Your task to perform on an android device: Find coffee shops on Maps Image 0: 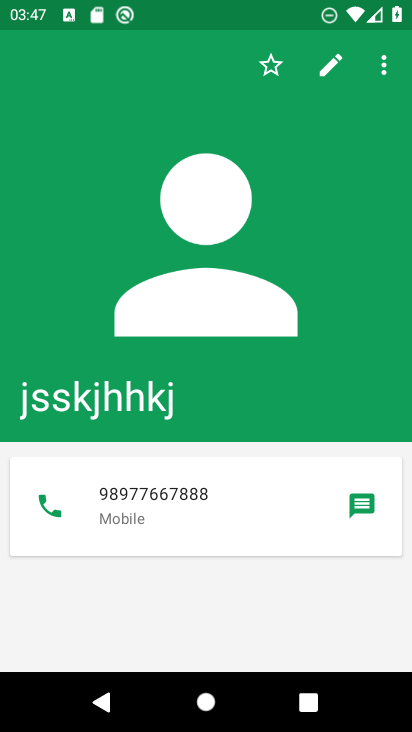
Step 0: press home button
Your task to perform on an android device: Find coffee shops on Maps Image 1: 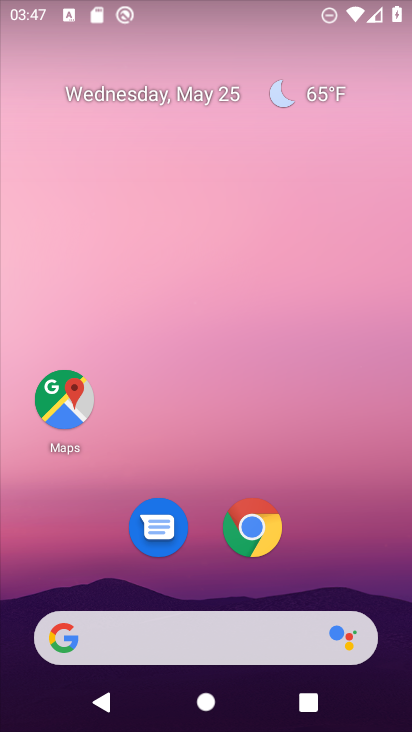
Step 1: drag from (329, 624) to (287, 5)
Your task to perform on an android device: Find coffee shops on Maps Image 2: 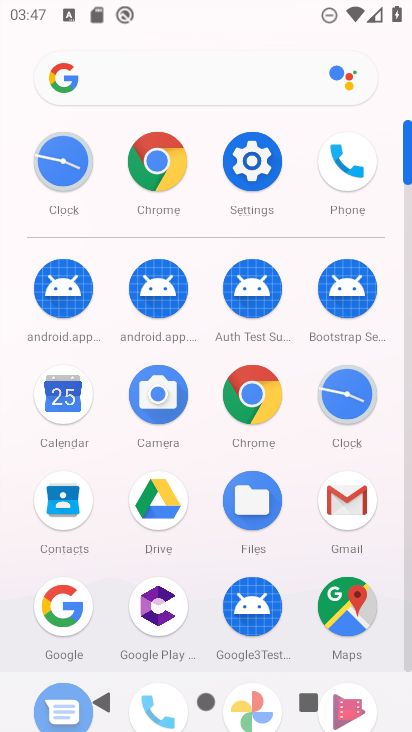
Step 2: click (341, 613)
Your task to perform on an android device: Find coffee shops on Maps Image 3: 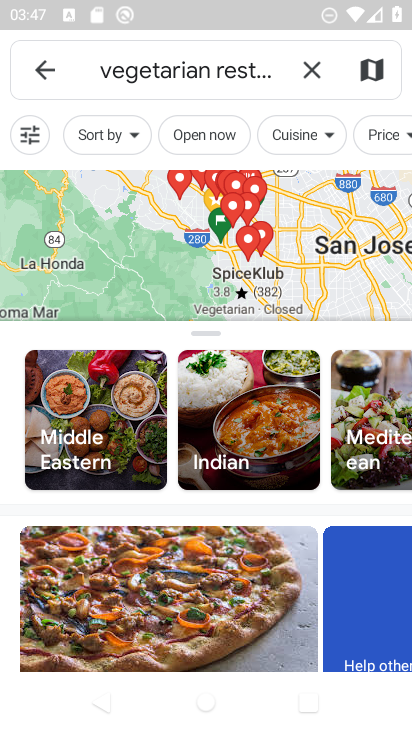
Step 3: press back button
Your task to perform on an android device: Find coffee shops on Maps Image 4: 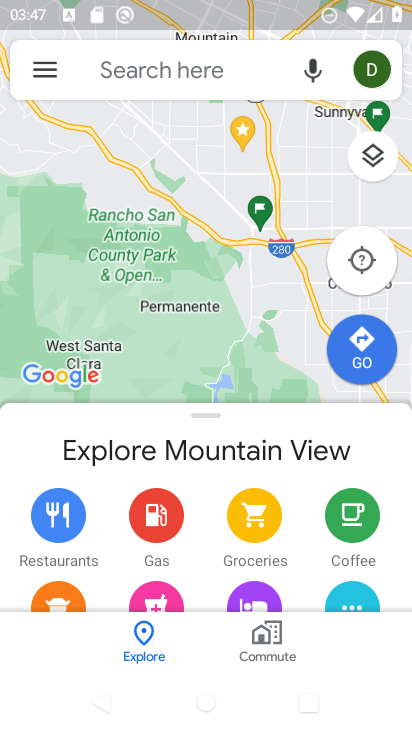
Step 4: click (190, 81)
Your task to perform on an android device: Find coffee shops on Maps Image 5: 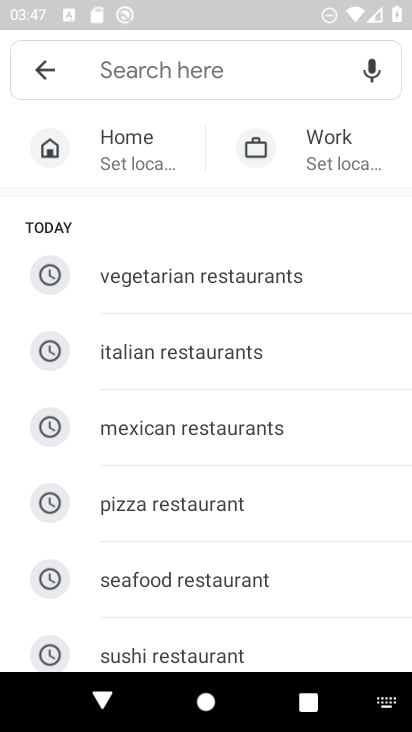
Step 5: type "coffee shops"
Your task to perform on an android device: Find coffee shops on Maps Image 6: 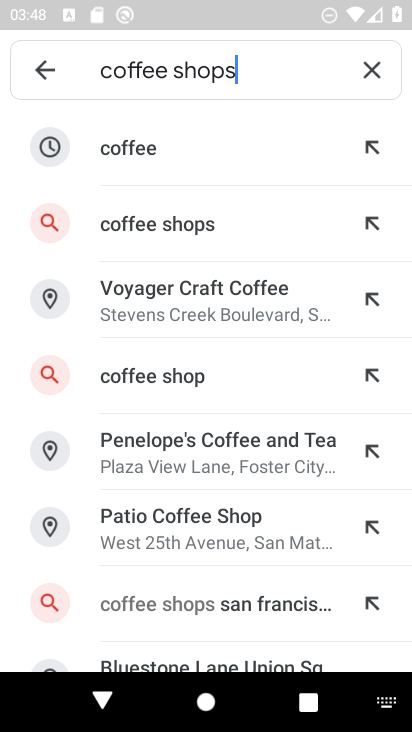
Step 6: click (169, 224)
Your task to perform on an android device: Find coffee shops on Maps Image 7: 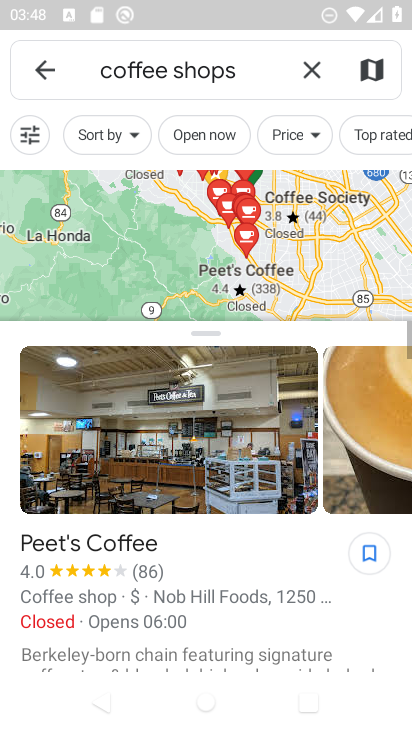
Step 7: task complete